Your task to perform on an android device: Go to Amazon Image 0: 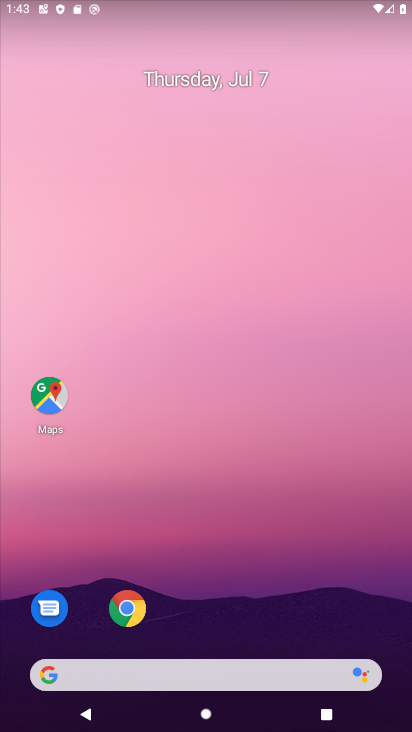
Step 0: drag from (309, 577) to (269, 59)
Your task to perform on an android device: Go to Amazon Image 1: 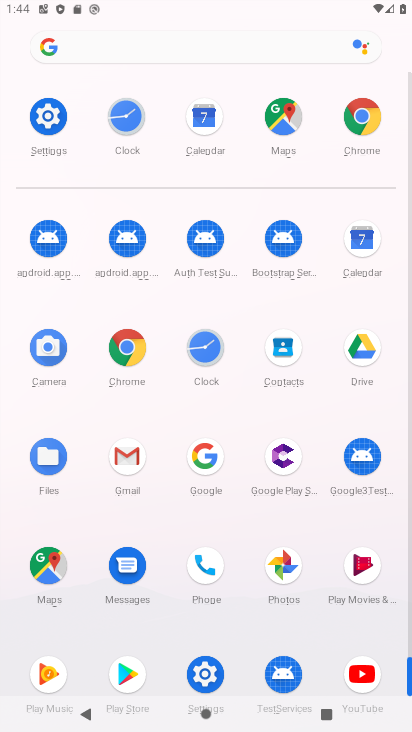
Step 1: click (113, 345)
Your task to perform on an android device: Go to Amazon Image 2: 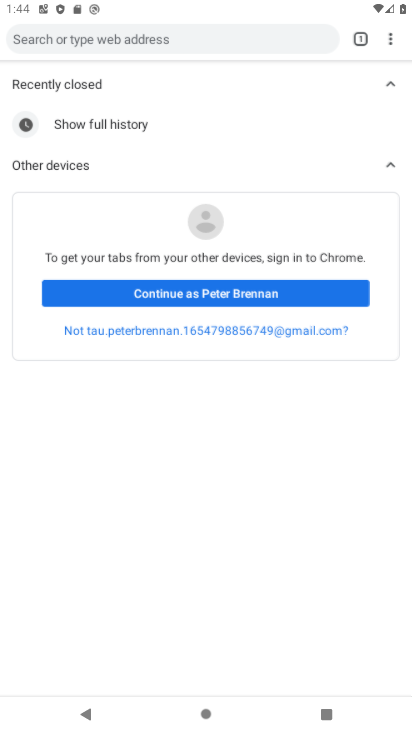
Step 2: click (198, 44)
Your task to perform on an android device: Go to Amazon Image 3: 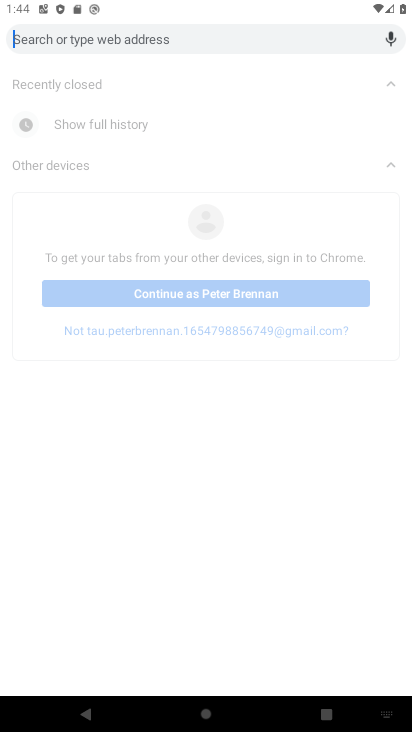
Step 3: type "amazon"
Your task to perform on an android device: Go to Amazon Image 4: 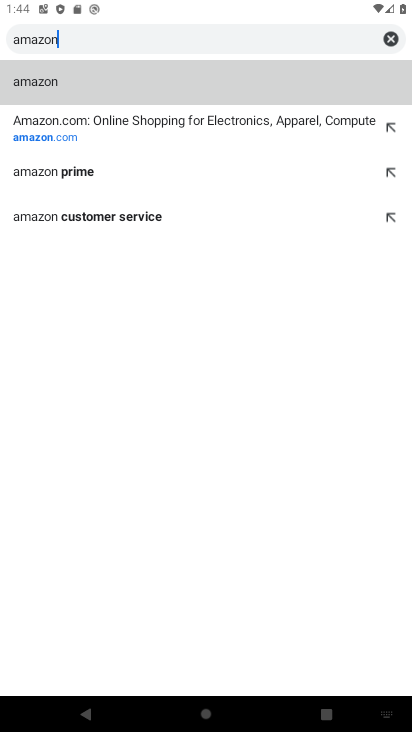
Step 4: click (324, 123)
Your task to perform on an android device: Go to Amazon Image 5: 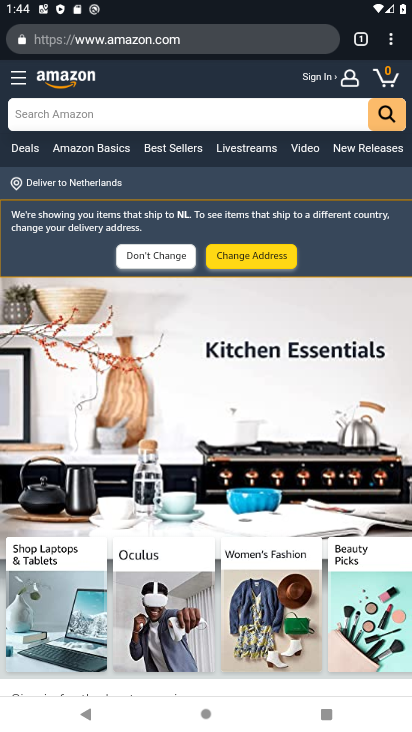
Step 5: task complete